Your task to perform on an android device: Open calendar and show me the second week of next month Image 0: 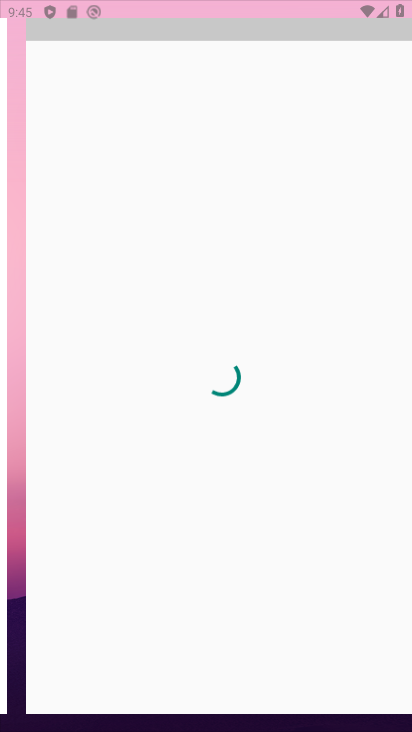
Step 0: press home button
Your task to perform on an android device: Open calendar and show me the second week of next month Image 1: 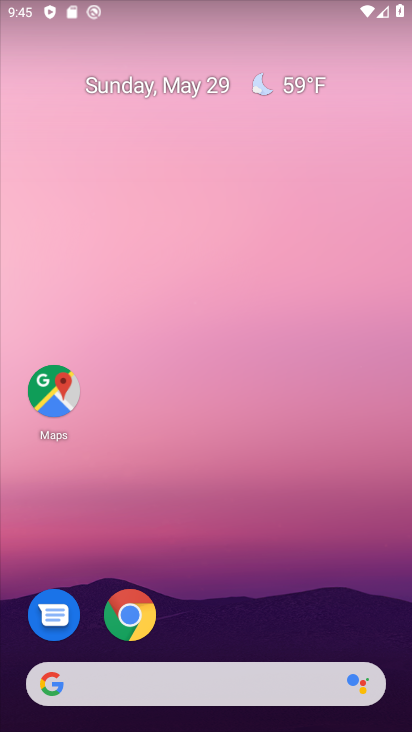
Step 1: drag from (241, 611) to (242, 184)
Your task to perform on an android device: Open calendar and show me the second week of next month Image 2: 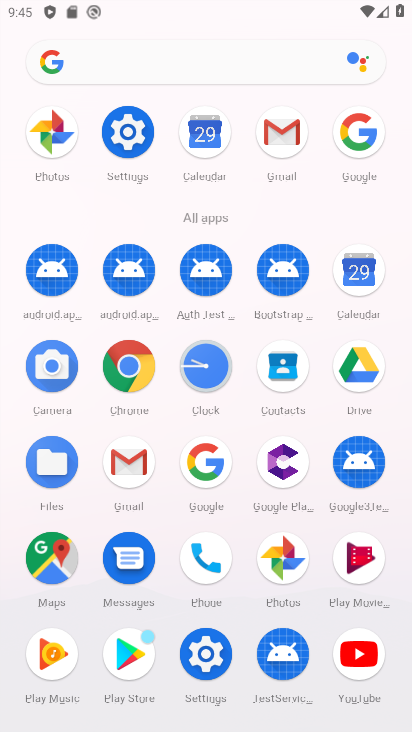
Step 2: click (363, 282)
Your task to perform on an android device: Open calendar and show me the second week of next month Image 3: 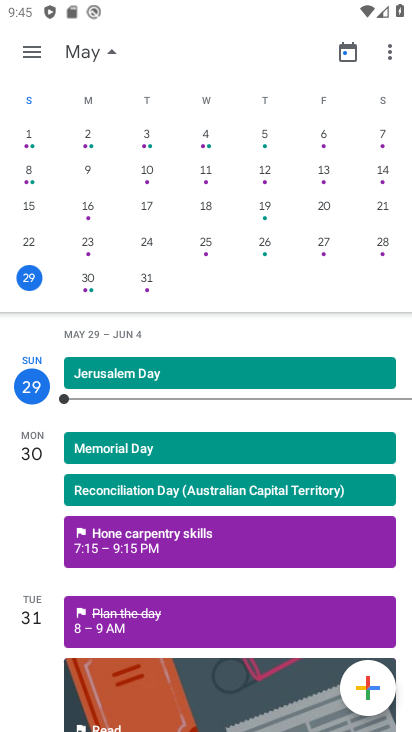
Step 3: drag from (295, 280) to (63, 275)
Your task to perform on an android device: Open calendar and show me the second week of next month Image 4: 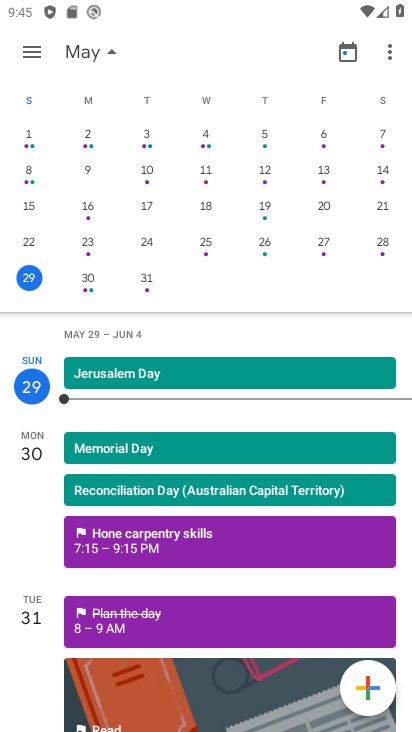
Step 4: drag from (361, 275) to (4, 236)
Your task to perform on an android device: Open calendar and show me the second week of next month Image 5: 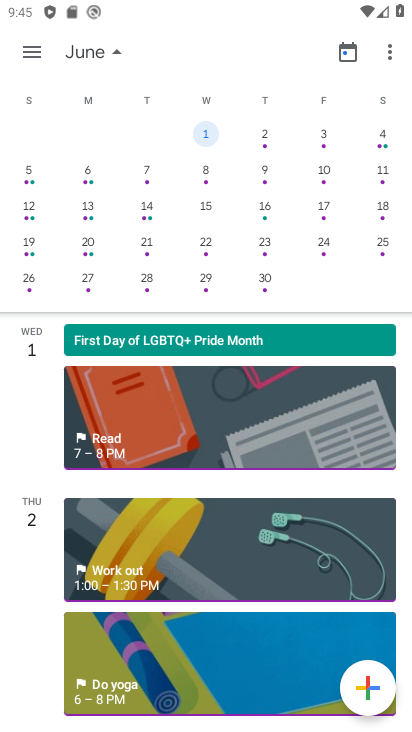
Step 5: click (264, 172)
Your task to perform on an android device: Open calendar and show me the second week of next month Image 6: 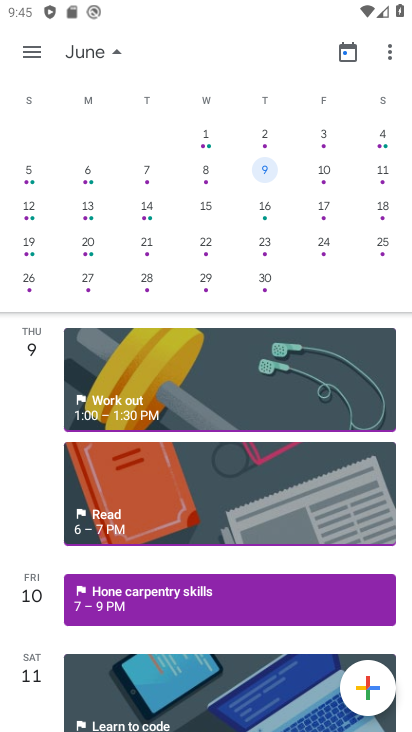
Step 6: task complete